Your task to perform on an android device: toggle notifications settings in the gmail app Image 0: 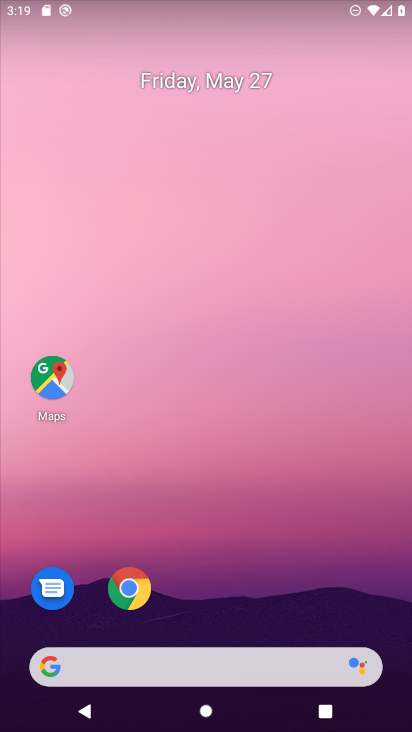
Step 0: drag from (313, 560) to (350, 219)
Your task to perform on an android device: toggle notifications settings in the gmail app Image 1: 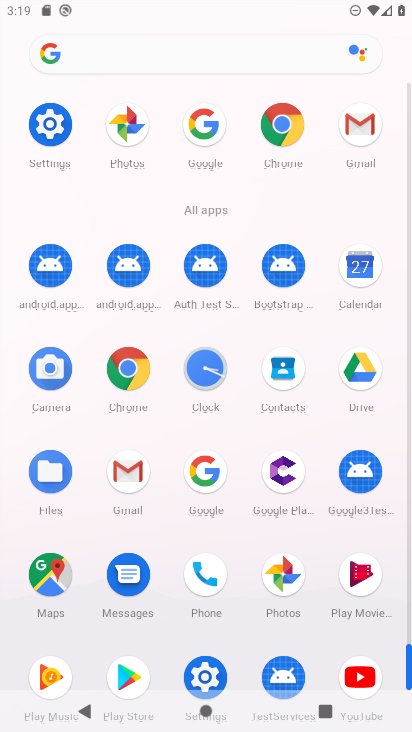
Step 1: click (349, 139)
Your task to perform on an android device: toggle notifications settings in the gmail app Image 2: 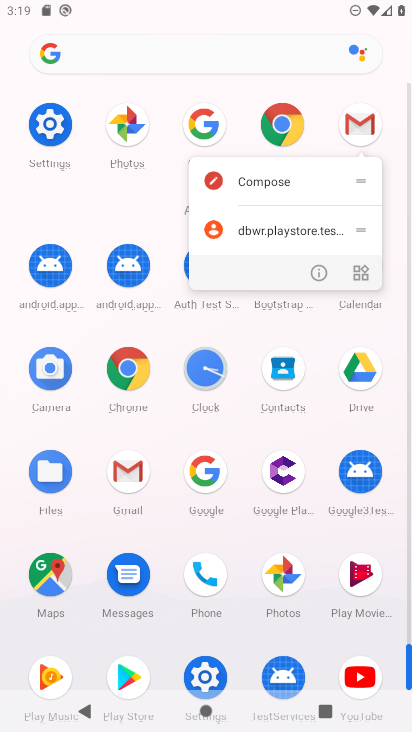
Step 2: click (324, 270)
Your task to perform on an android device: toggle notifications settings in the gmail app Image 3: 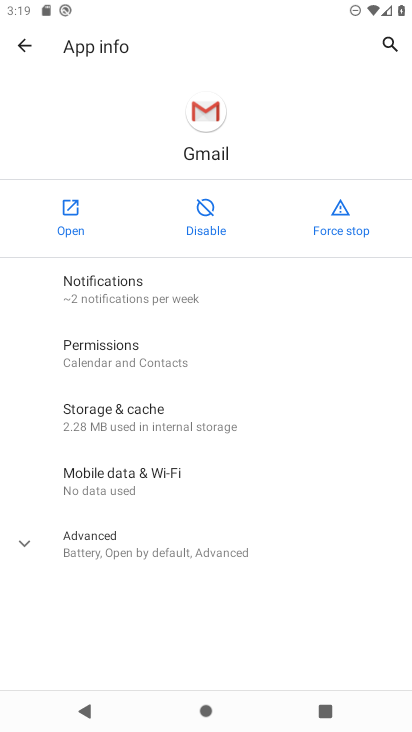
Step 3: click (145, 285)
Your task to perform on an android device: toggle notifications settings in the gmail app Image 4: 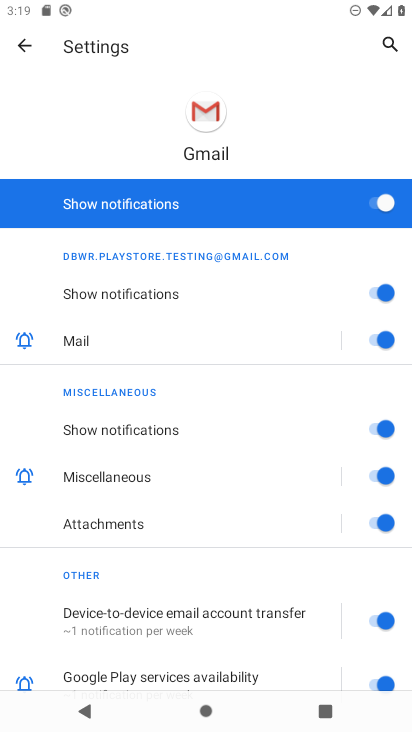
Step 4: click (376, 202)
Your task to perform on an android device: toggle notifications settings in the gmail app Image 5: 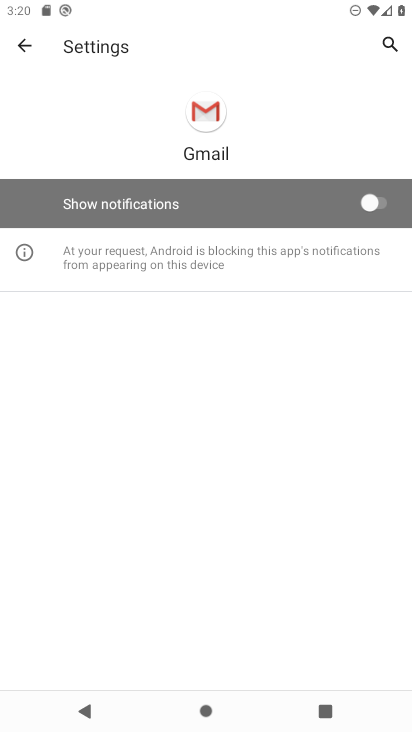
Step 5: task complete